Your task to perform on an android device: Go to internet settings Image 0: 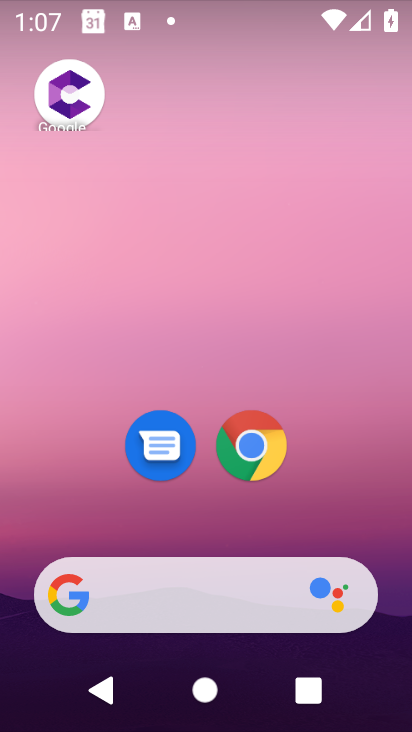
Step 0: drag from (251, 10) to (304, 512)
Your task to perform on an android device: Go to internet settings Image 1: 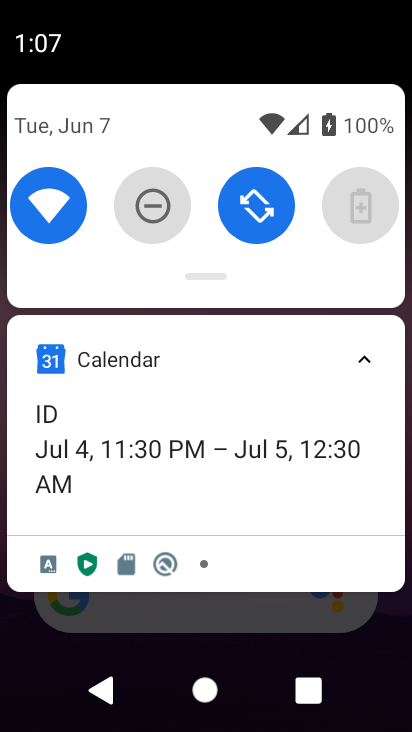
Step 1: drag from (261, 148) to (303, 614)
Your task to perform on an android device: Go to internet settings Image 2: 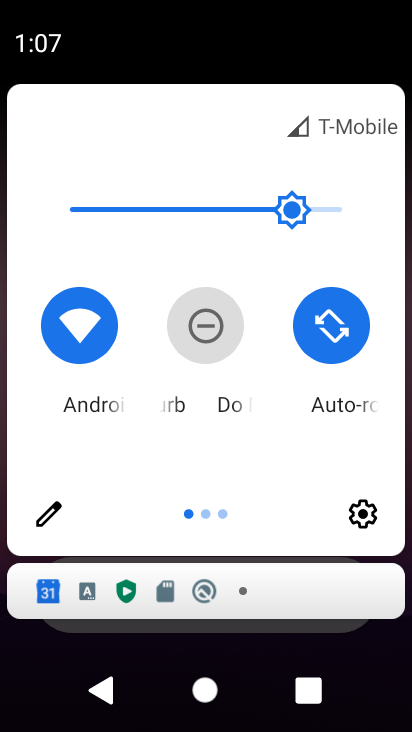
Step 2: drag from (379, 460) to (9, 451)
Your task to perform on an android device: Go to internet settings Image 3: 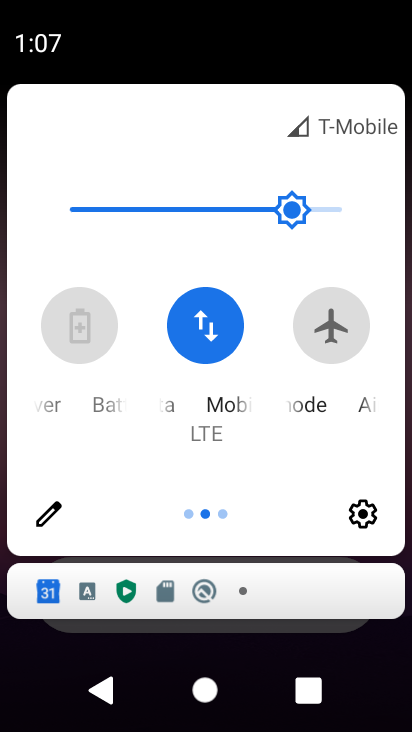
Step 3: click (221, 353)
Your task to perform on an android device: Go to internet settings Image 4: 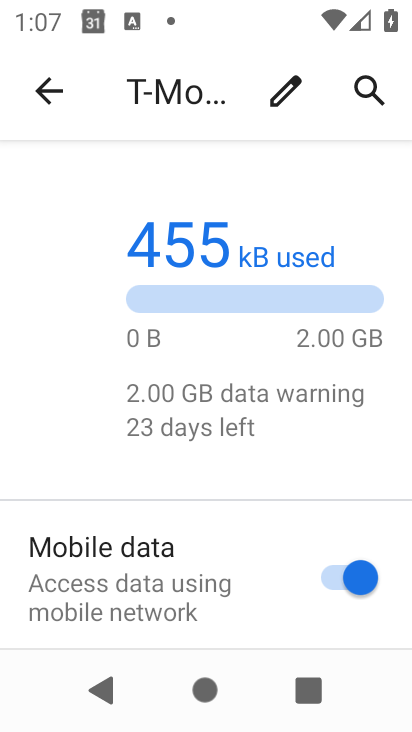
Step 4: task complete